Your task to perform on an android device: Open calendar and show me the fourth week of next month Image 0: 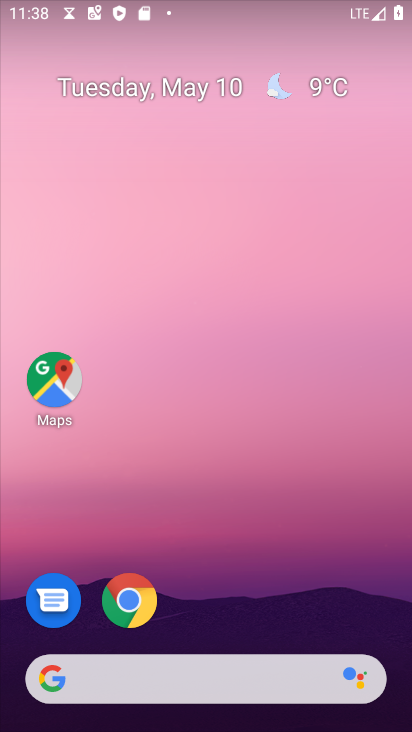
Step 0: drag from (245, 522) to (137, 135)
Your task to perform on an android device: Open calendar and show me the fourth week of next month Image 1: 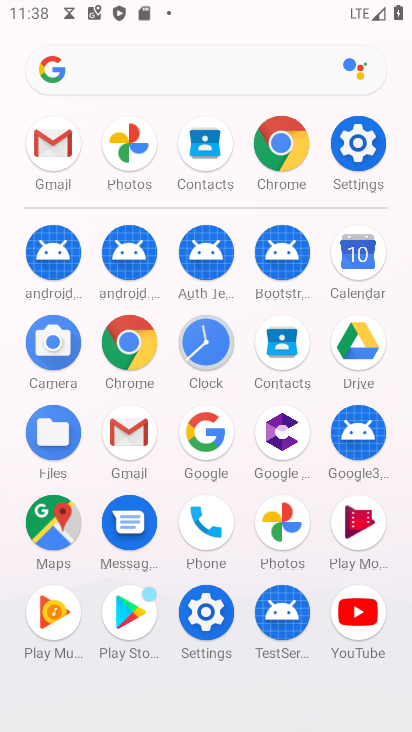
Step 1: click (352, 255)
Your task to perform on an android device: Open calendar and show me the fourth week of next month Image 2: 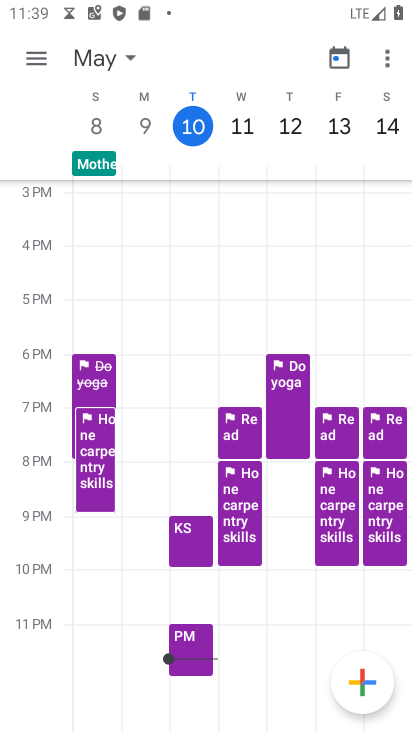
Step 2: click (115, 61)
Your task to perform on an android device: Open calendar and show me the fourth week of next month Image 3: 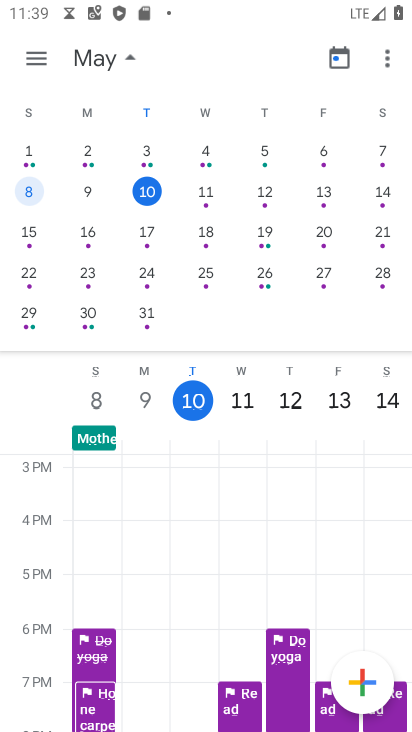
Step 3: drag from (348, 246) to (34, 386)
Your task to perform on an android device: Open calendar and show me the fourth week of next month Image 4: 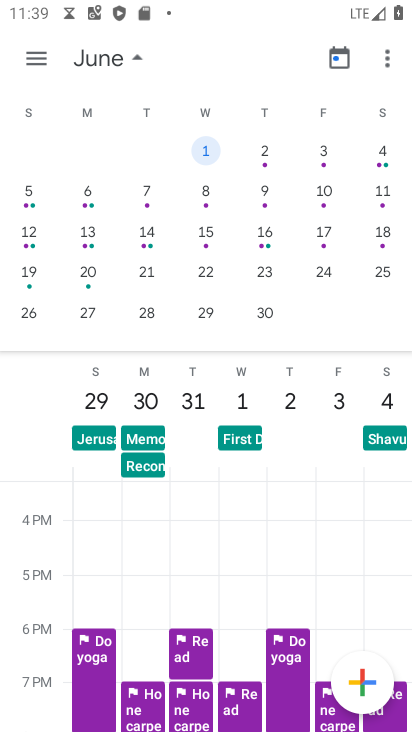
Step 4: click (34, 268)
Your task to perform on an android device: Open calendar and show me the fourth week of next month Image 5: 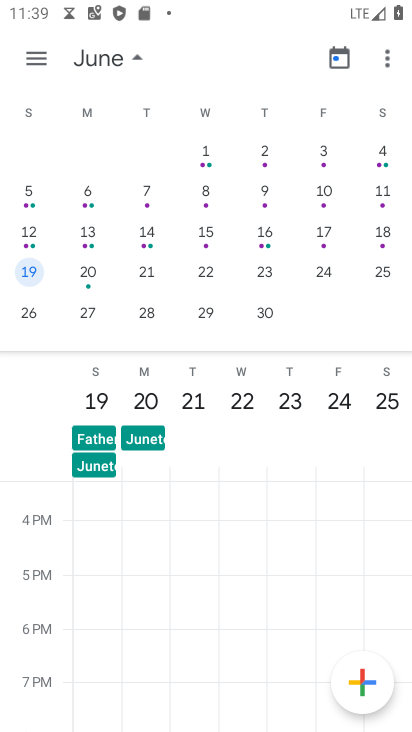
Step 5: task complete